Your task to perform on an android device: turn off wifi Image 0: 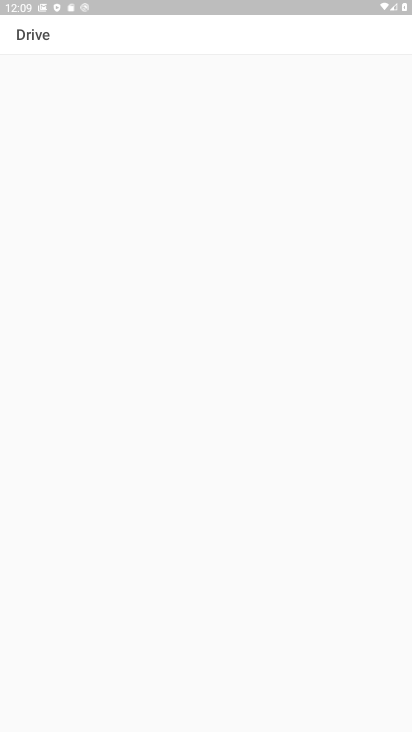
Step 0: press home button
Your task to perform on an android device: turn off wifi Image 1: 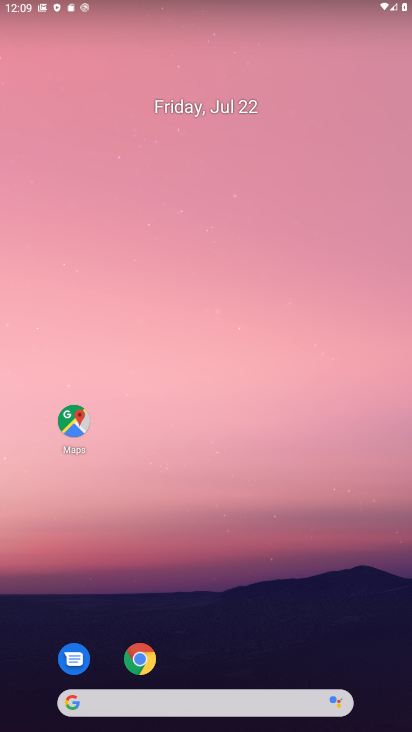
Step 1: drag from (211, 668) to (195, 289)
Your task to perform on an android device: turn off wifi Image 2: 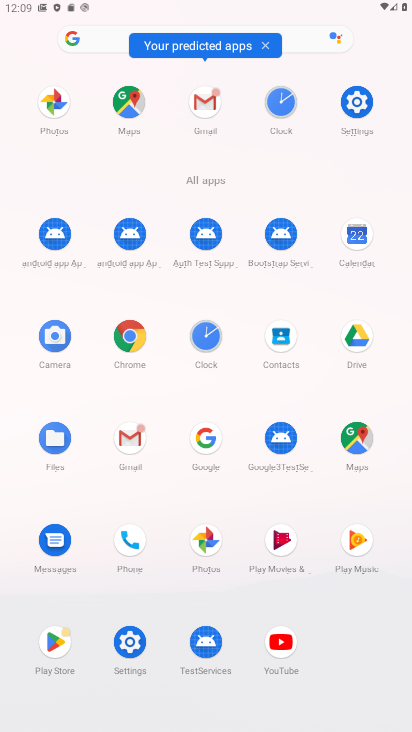
Step 2: click (349, 110)
Your task to perform on an android device: turn off wifi Image 3: 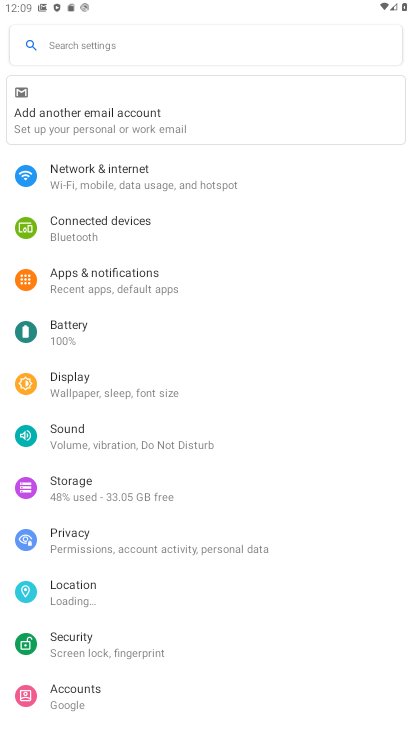
Step 3: click (106, 165)
Your task to perform on an android device: turn off wifi Image 4: 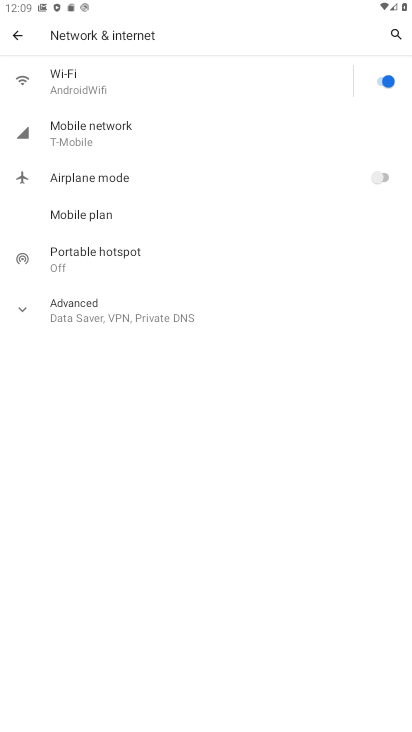
Step 4: click (387, 76)
Your task to perform on an android device: turn off wifi Image 5: 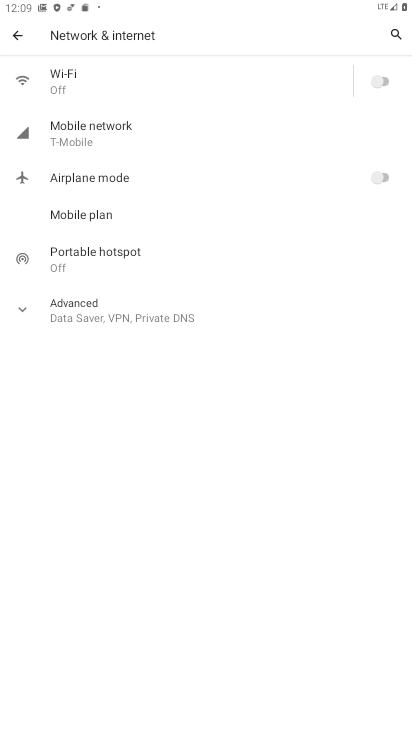
Step 5: task complete